Your task to perform on an android device: Go to Android settings Image 0: 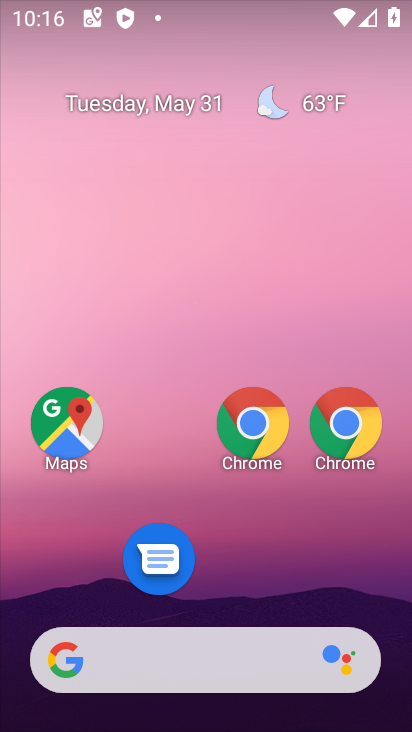
Step 0: drag from (238, 700) to (107, 211)
Your task to perform on an android device: Go to Android settings Image 1: 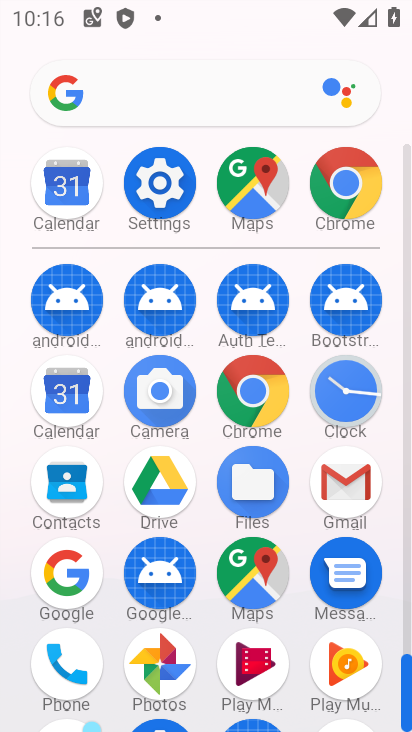
Step 1: click (153, 196)
Your task to perform on an android device: Go to Android settings Image 2: 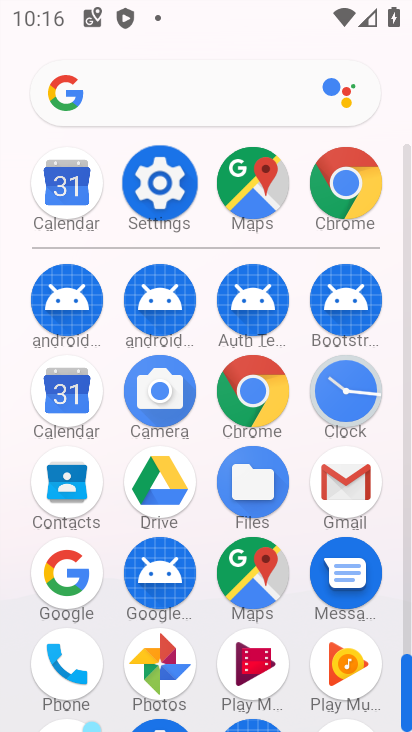
Step 2: click (154, 195)
Your task to perform on an android device: Go to Android settings Image 3: 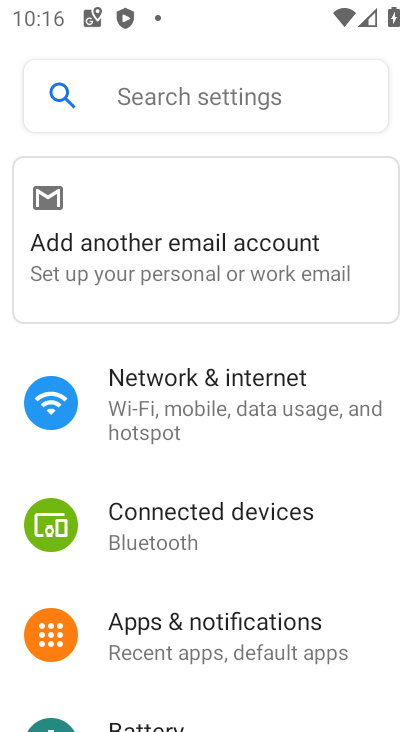
Step 3: drag from (219, 585) to (211, 254)
Your task to perform on an android device: Go to Android settings Image 4: 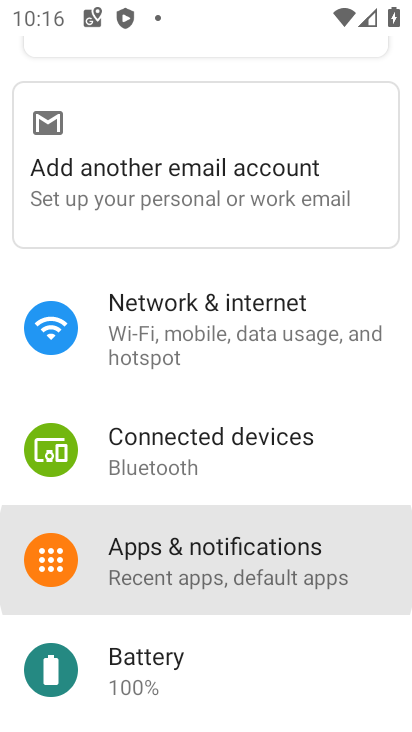
Step 4: drag from (210, 477) to (190, 189)
Your task to perform on an android device: Go to Android settings Image 5: 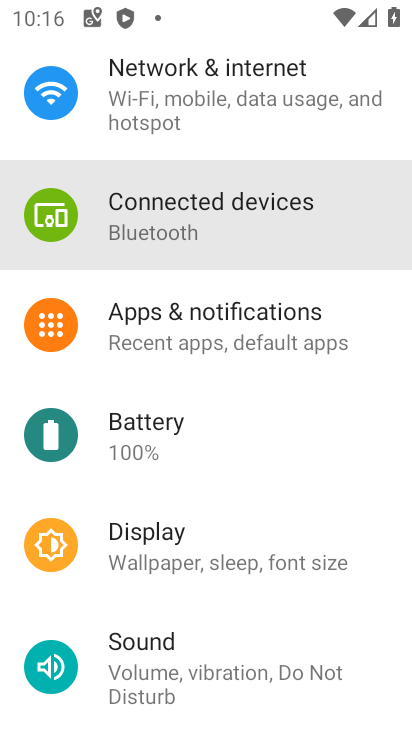
Step 5: drag from (201, 439) to (201, 71)
Your task to perform on an android device: Go to Android settings Image 6: 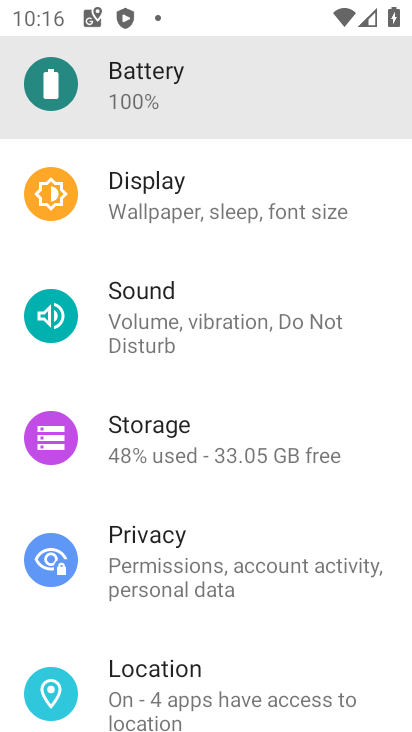
Step 6: drag from (169, 511) to (184, 186)
Your task to perform on an android device: Go to Android settings Image 7: 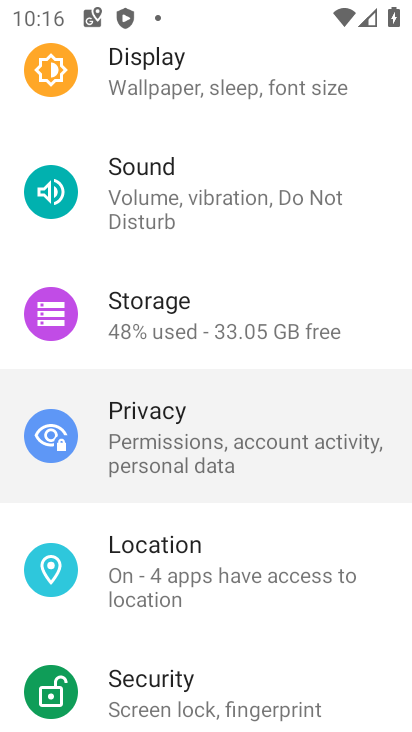
Step 7: drag from (173, 465) to (197, 163)
Your task to perform on an android device: Go to Android settings Image 8: 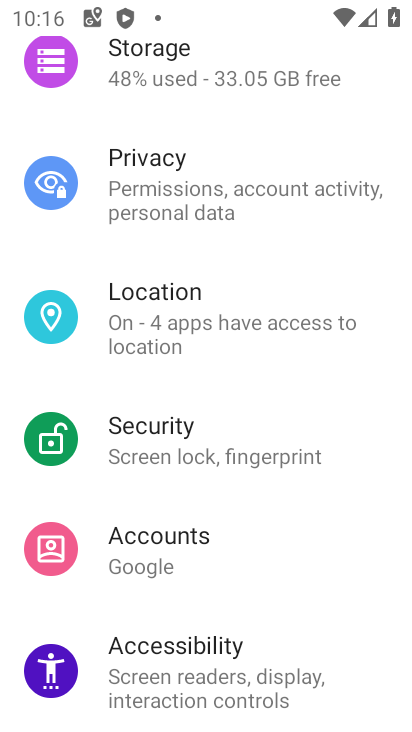
Step 8: drag from (225, 486) to (222, 201)
Your task to perform on an android device: Go to Android settings Image 9: 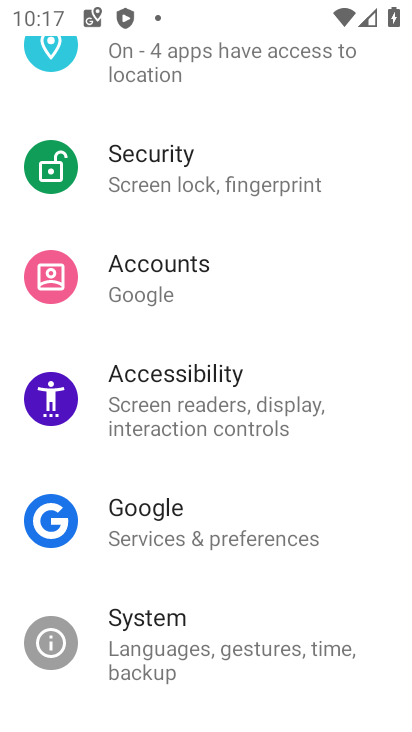
Step 9: drag from (185, 395) to (178, 103)
Your task to perform on an android device: Go to Android settings Image 10: 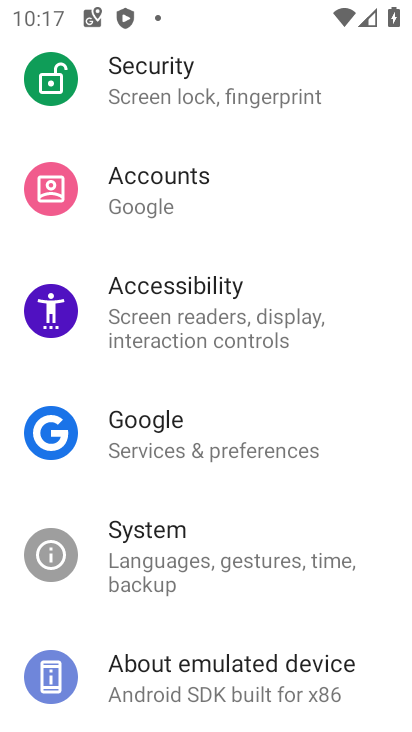
Step 10: drag from (145, 540) to (136, 208)
Your task to perform on an android device: Go to Android settings Image 11: 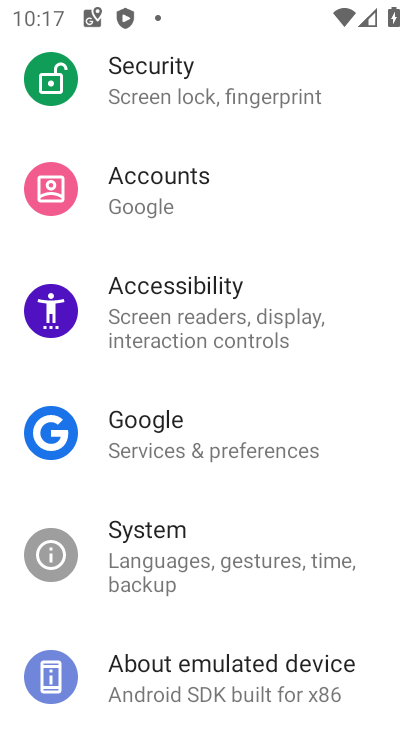
Step 11: click (173, 667)
Your task to perform on an android device: Go to Android settings Image 12: 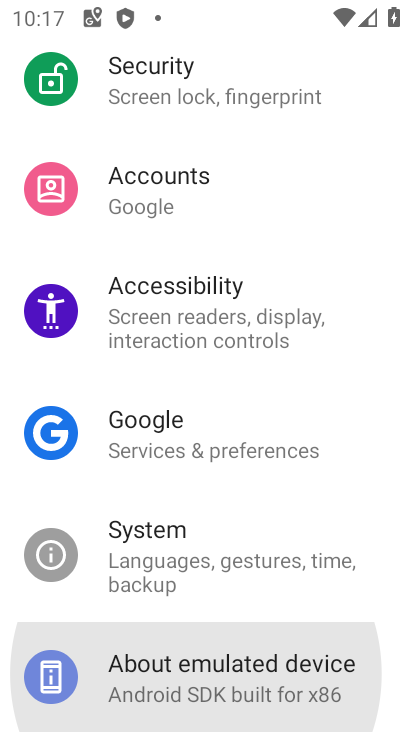
Step 12: click (173, 667)
Your task to perform on an android device: Go to Android settings Image 13: 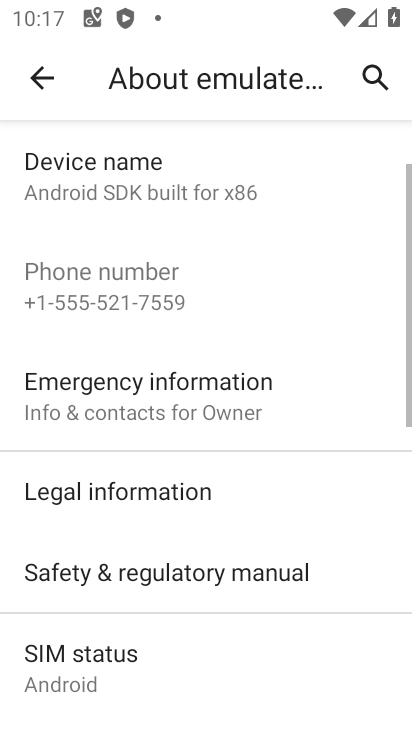
Step 13: click (200, 664)
Your task to perform on an android device: Go to Android settings Image 14: 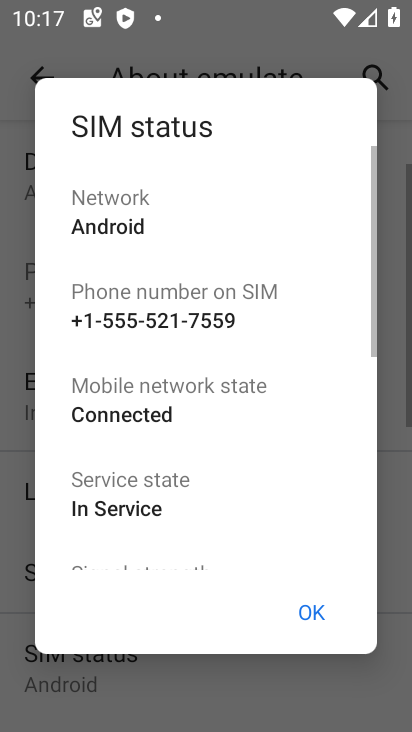
Step 14: task complete